Your task to perform on an android device: View the shopping cart on costco. Add "acer predator" to the cart on costco, then select checkout. Image 0: 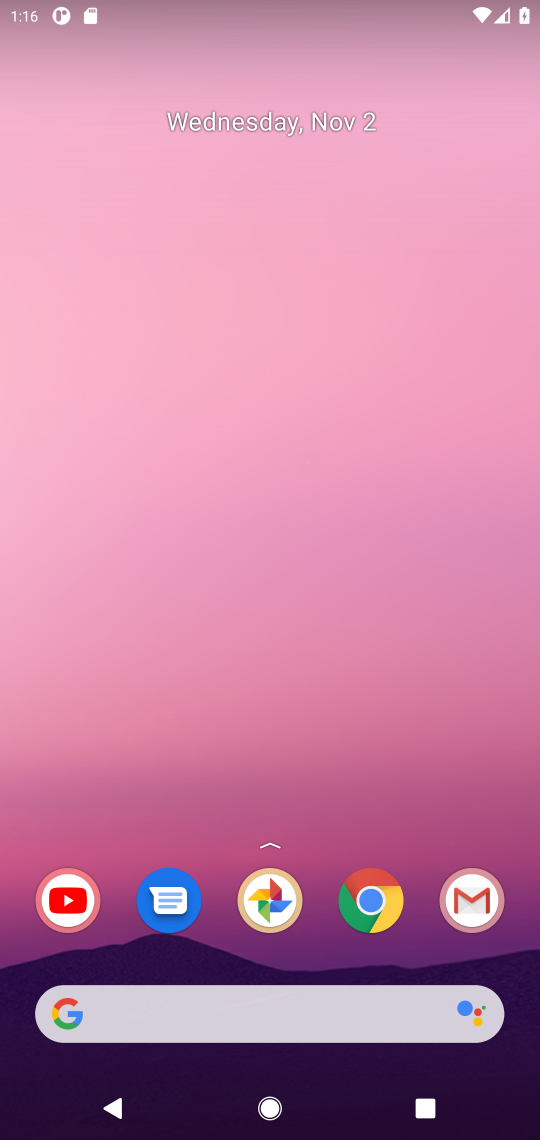
Step 0: click (387, 905)
Your task to perform on an android device: View the shopping cart on costco. Add "acer predator" to the cart on costco, then select checkout. Image 1: 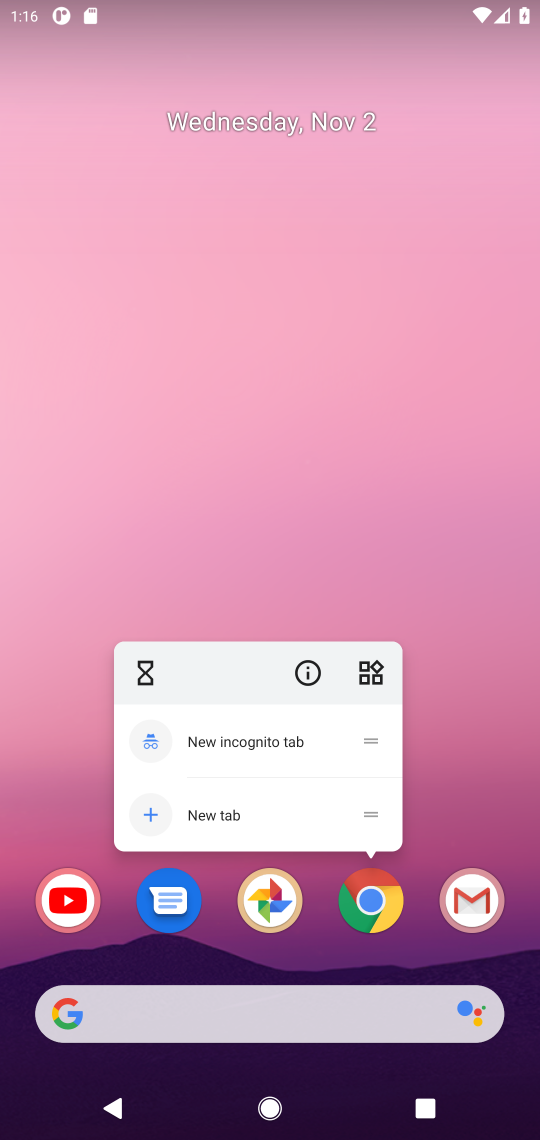
Step 1: click (384, 929)
Your task to perform on an android device: View the shopping cart on costco. Add "acer predator" to the cart on costco, then select checkout. Image 2: 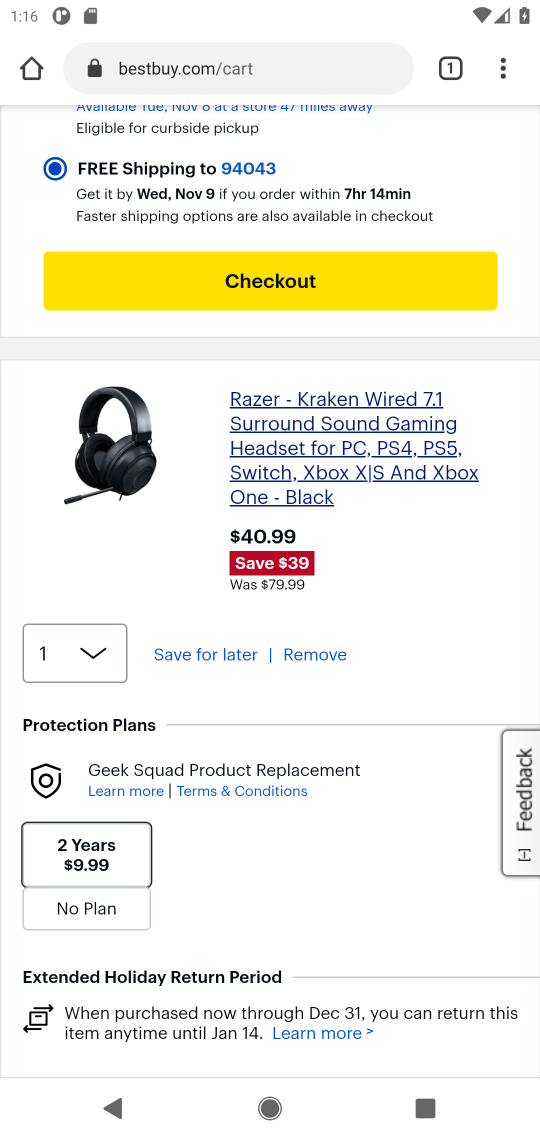
Step 2: press home button
Your task to perform on an android device: View the shopping cart on costco. Add "acer predator" to the cart on costco, then select checkout. Image 3: 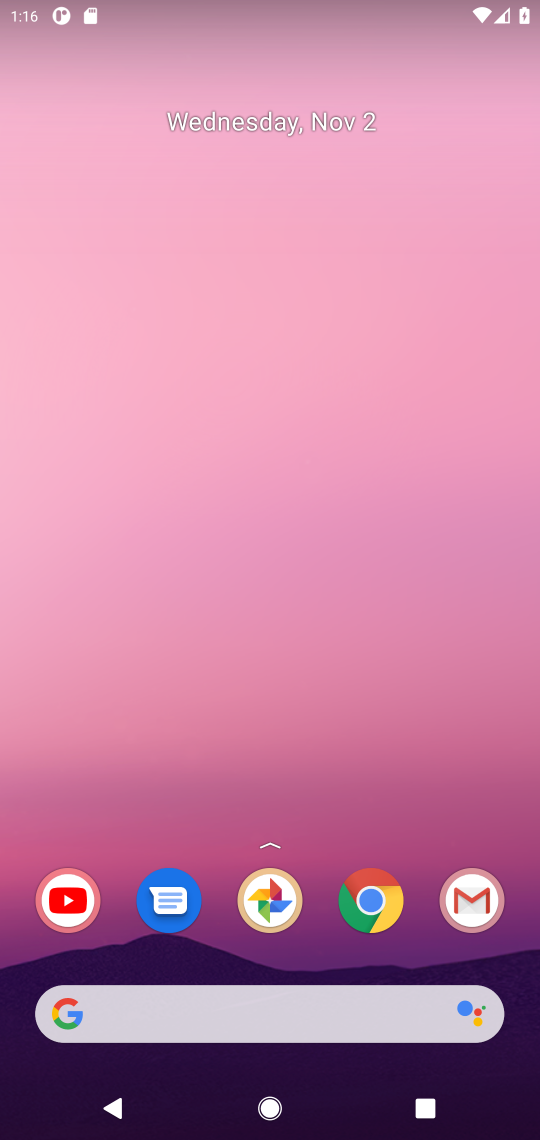
Step 3: click (368, 898)
Your task to perform on an android device: View the shopping cart on costco. Add "acer predator" to the cart on costco, then select checkout. Image 4: 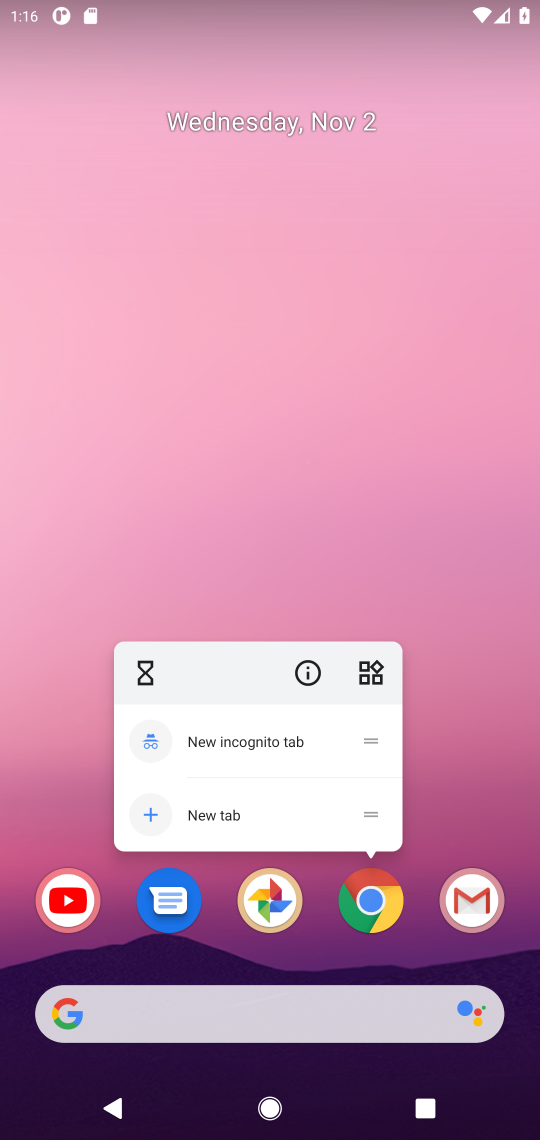
Step 4: click (364, 892)
Your task to perform on an android device: View the shopping cart on costco. Add "acer predator" to the cart on costco, then select checkout. Image 5: 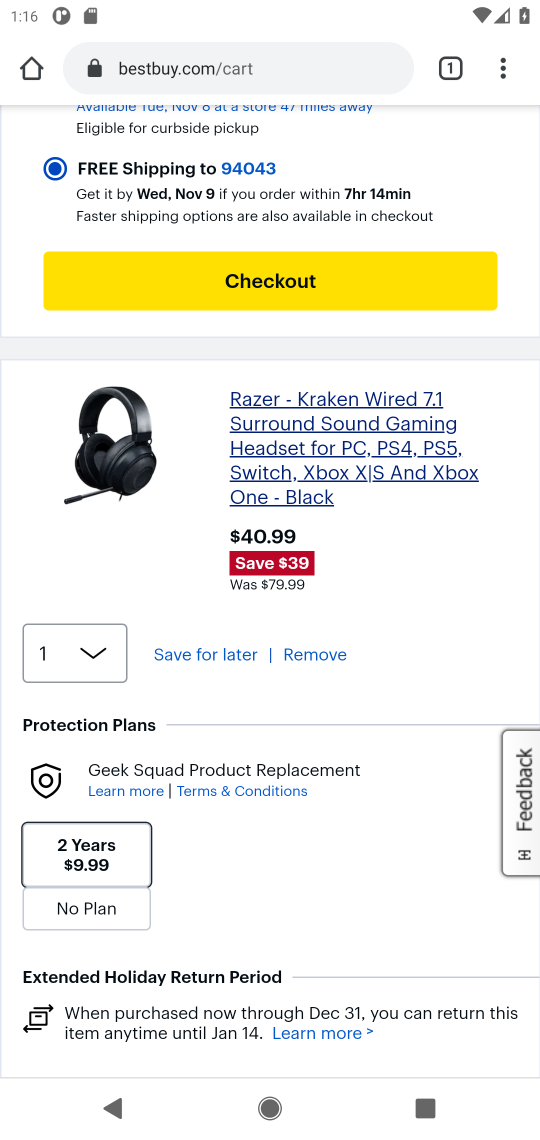
Step 5: click (211, 78)
Your task to perform on an android device: View the shopping cart on costco. Add "acer predator" to the cart on costco, then select checkout. Image 6: 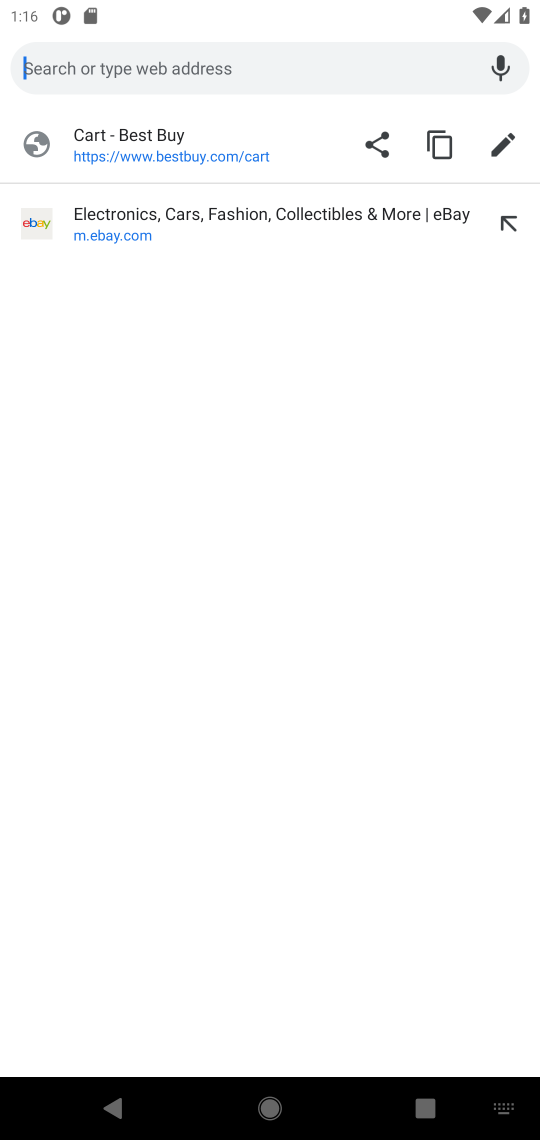
Step 6: type "costco"
Your task to perform on an android device: View the shopping cart on costco. Add "acer predator" to the cart on costco, then select checkout. Image 7: 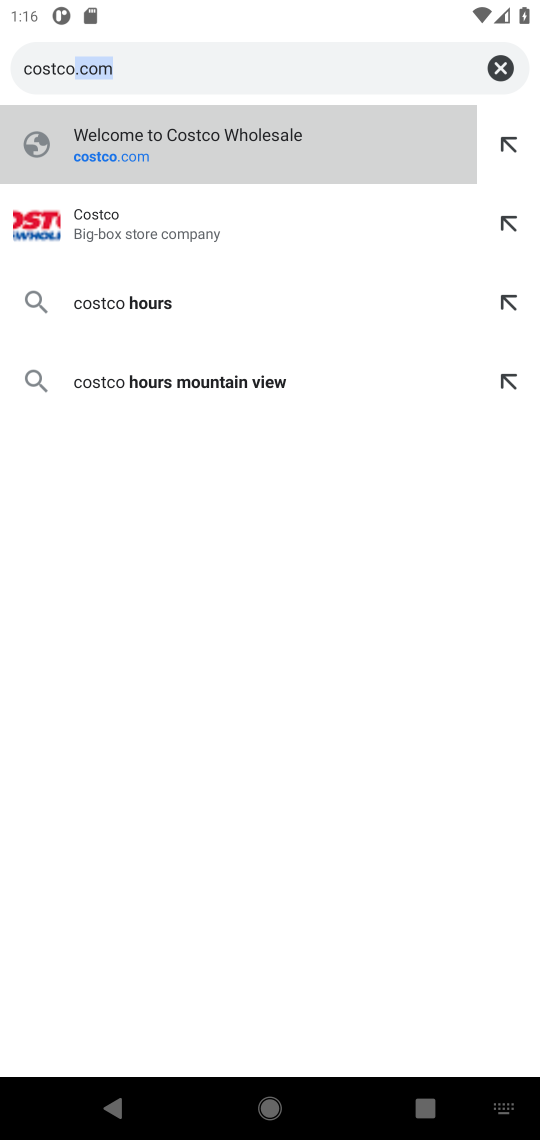
Step 7: type ""
Your task to perform on an android device: View the shopping cart on costco. Add "acer predator" to the cart on costco, then select checkout. Image 8: 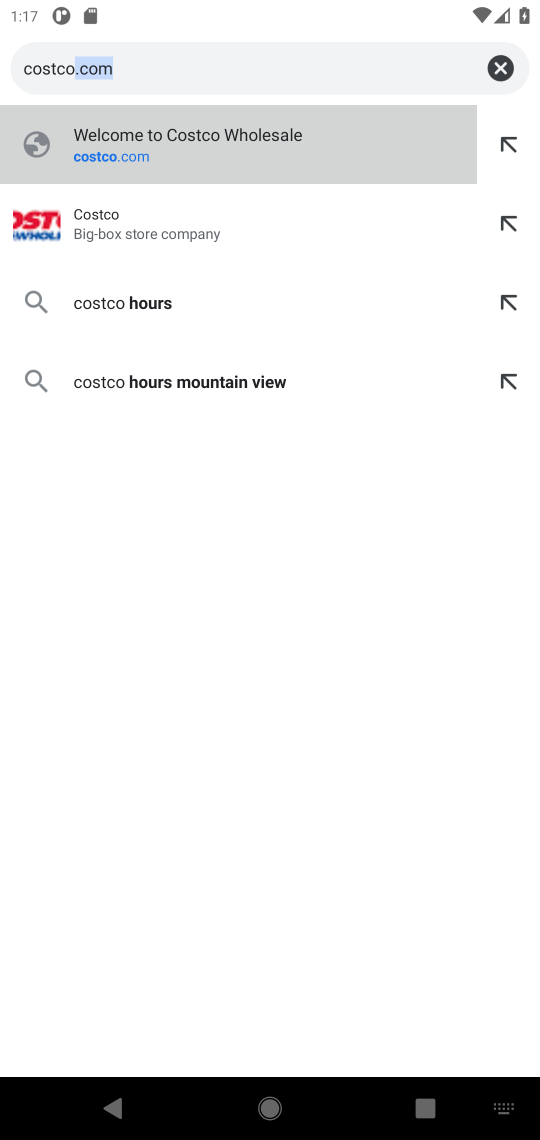
Step 8: click (100, 211)
Your task to perform on an android device: View the shopping cart on costco. Add "acer predator" to the cart on costco, then select checkout. Image 9: 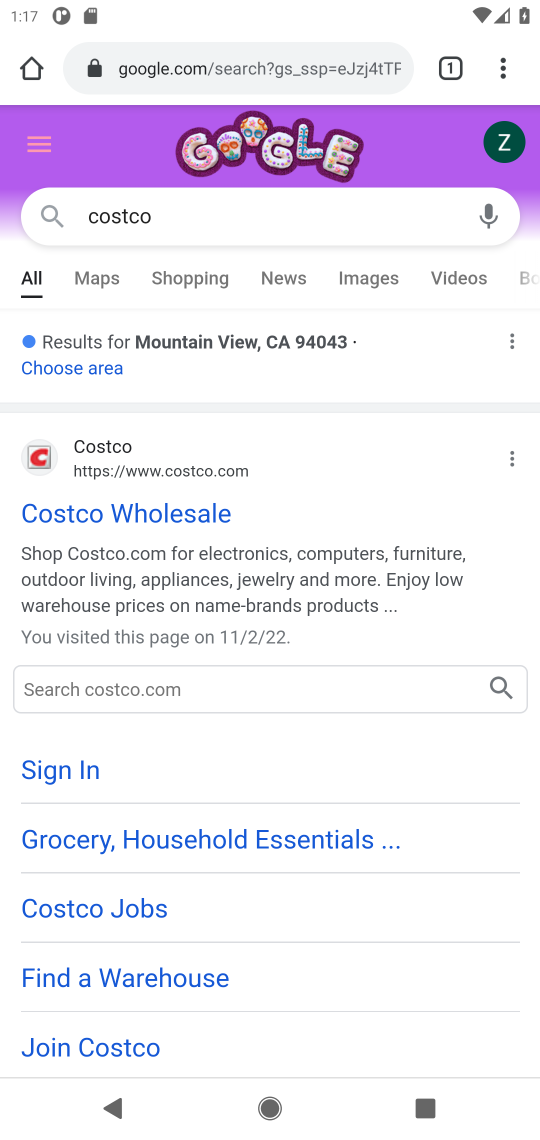
Step 9: click (150, 519)
Your task to perform on an android device: View the shopping cart on costco. Add "acer predator" to the cart on costco, then select checkout. Image 10: 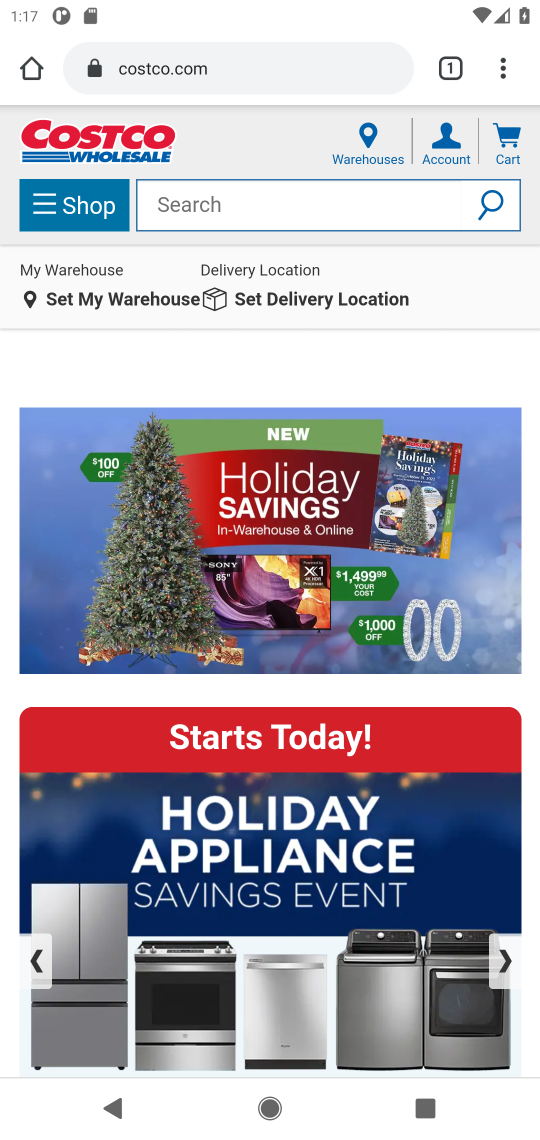
Step 10: click (306, 197)
Your task to perform on an android device: View the shopping cart on costco. Add "acer predator" to the cart on costco, then select checkout. Image 11: 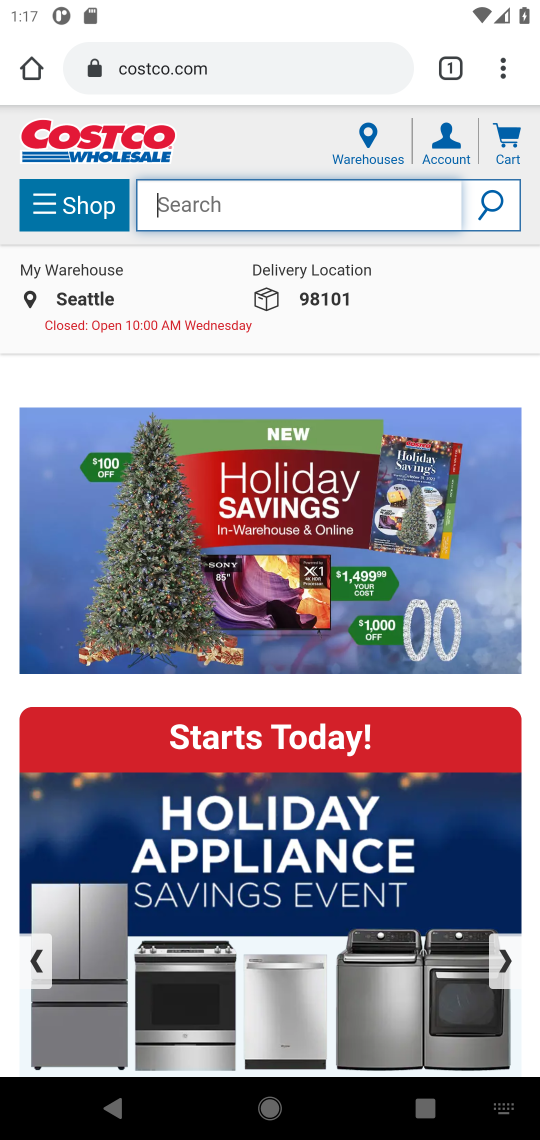
Step 11: type "acer predator"
Your task to perform on an android device: View the shopping cart on costco. Add "acer predator" to the cart on costco, then select checkout. Image 12: 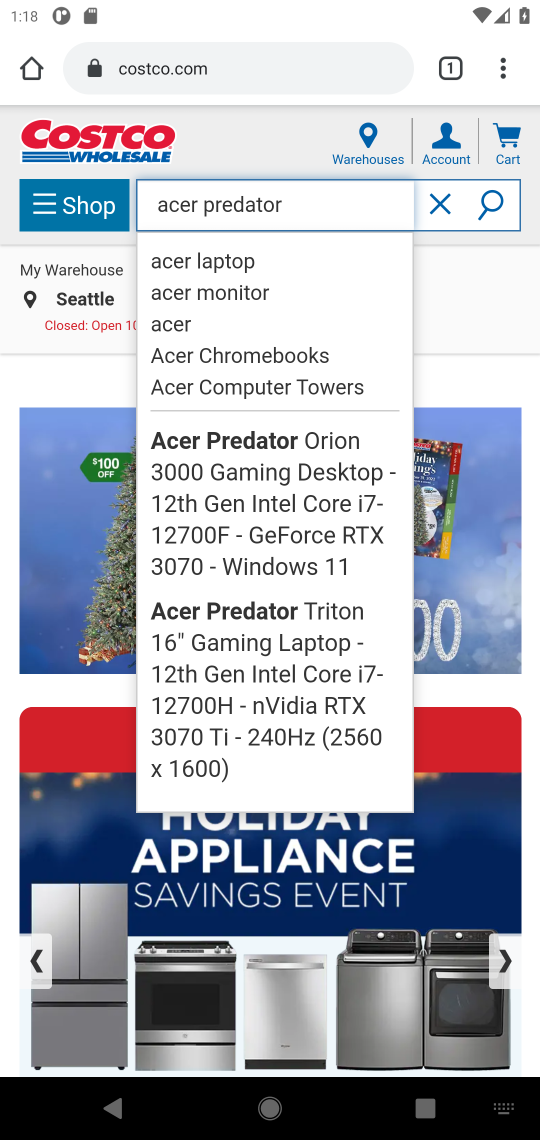
Step 12: click (209, 261)
Your task to perform on an android device: View the shopping cart on costco. Add "acer predator" to the cart on costco, then select checkout. Image 13: 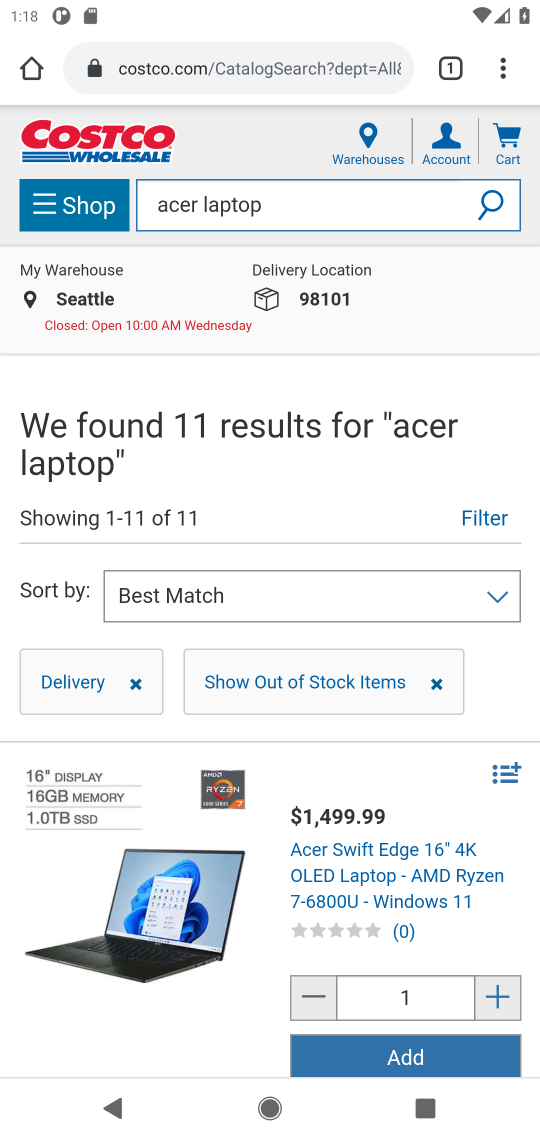
Step 13: drag from (264, 838) to (424, 21)
Your task to perform on an android device: View the shopping cart on costco. Add "acer predator" to the cart on costco, then select checkout. Image 14: 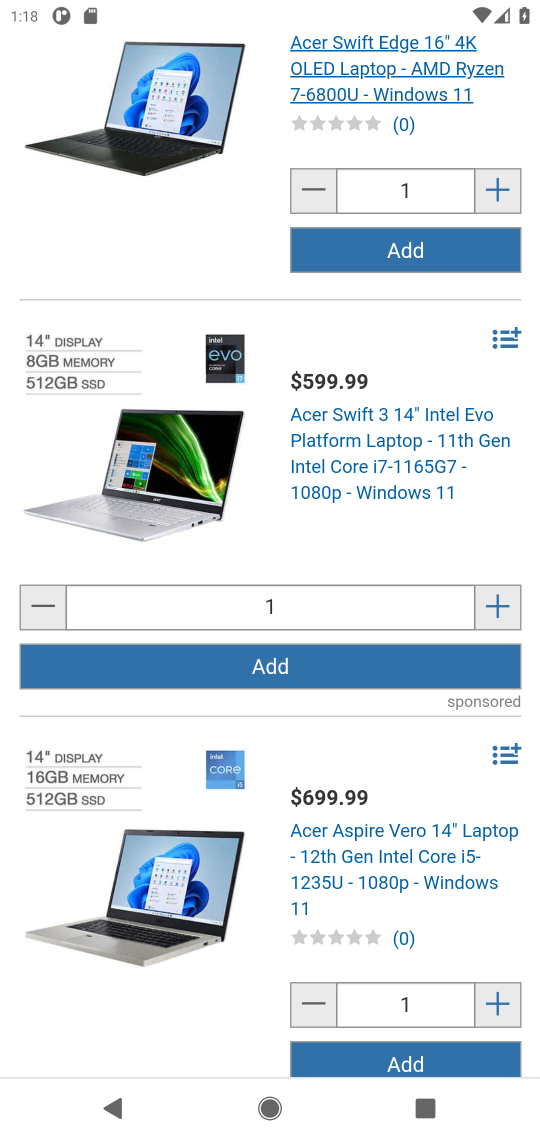
Step 14: drag from (174, 939) to (214, 413)
Your task to perform on an android device: View the shopping cart on costco. Add "acer predator" to the cart on costco, then select checkout. Image 15: 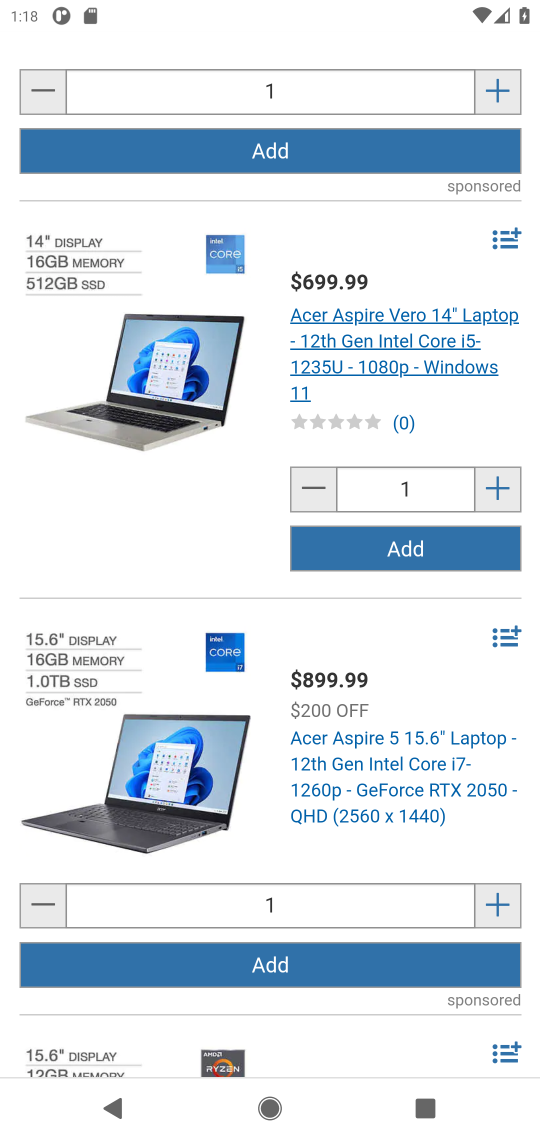
Step 15: click (358, 747)
Your task to perform on an android device: View the shopping cart on costco. Add "acer predator" to the cart on costco, then select checkout. Image 16: 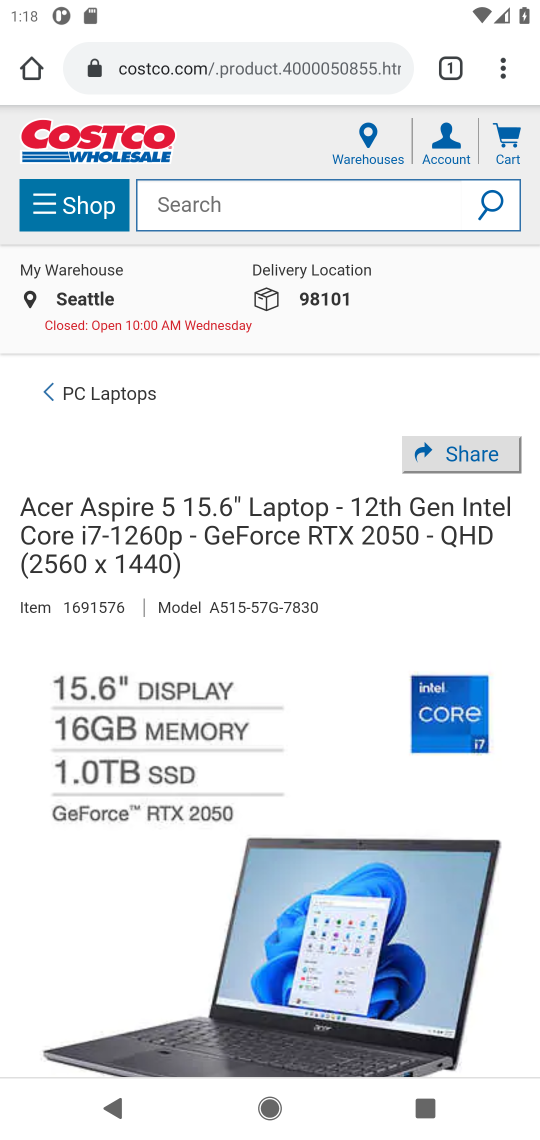
Step 16: drag from (177, 813) to (314, 391)
Your task to perform on an android device: View the shopping cart on costco. Add "acer predator" to the cart on costco, then select checkout. Image 17: 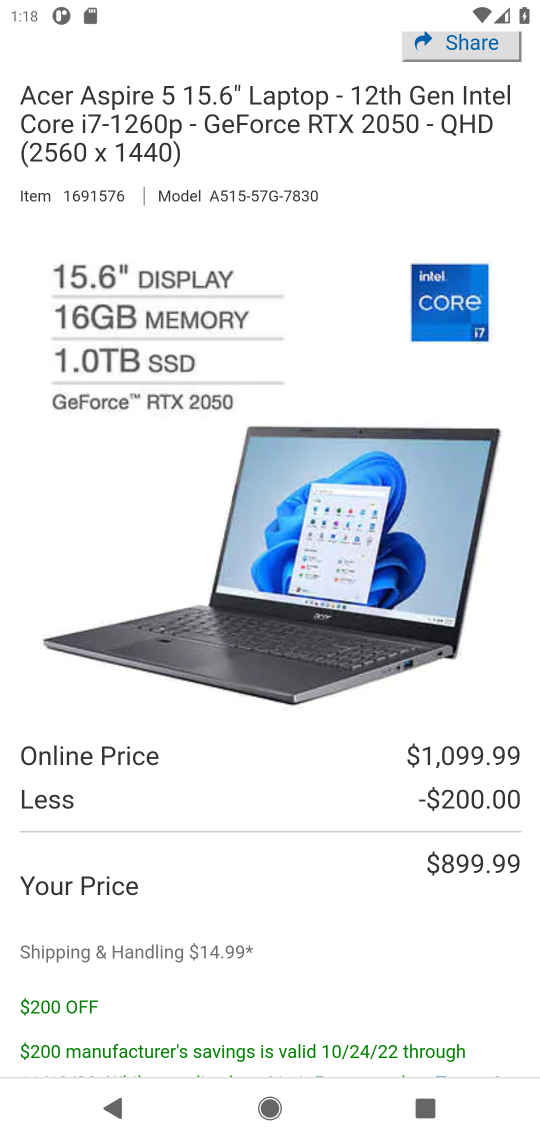
Step 17: drag from (212, 872) to (358, 113)
Your task to perform on an android device: View the shopping cart on costco. Add "acer predator" to the cart on costco, then select checkout. Image 18: 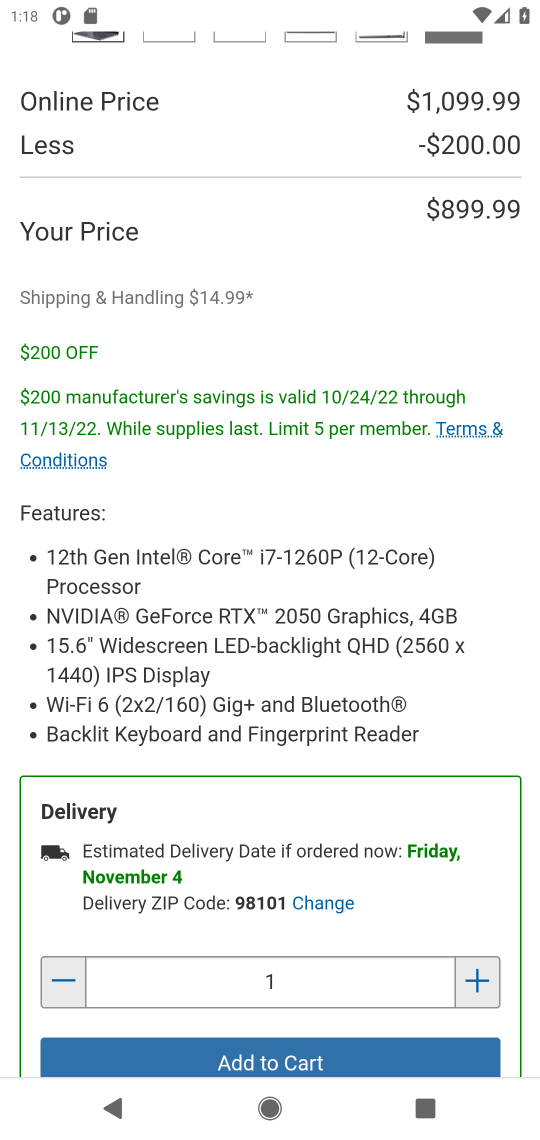
Step 18: click (246, 1061)
Your task to perform on an android device: View the shopping cart on costco. Add "acer predator" to the cart on costco, then select checkout. Image 19: 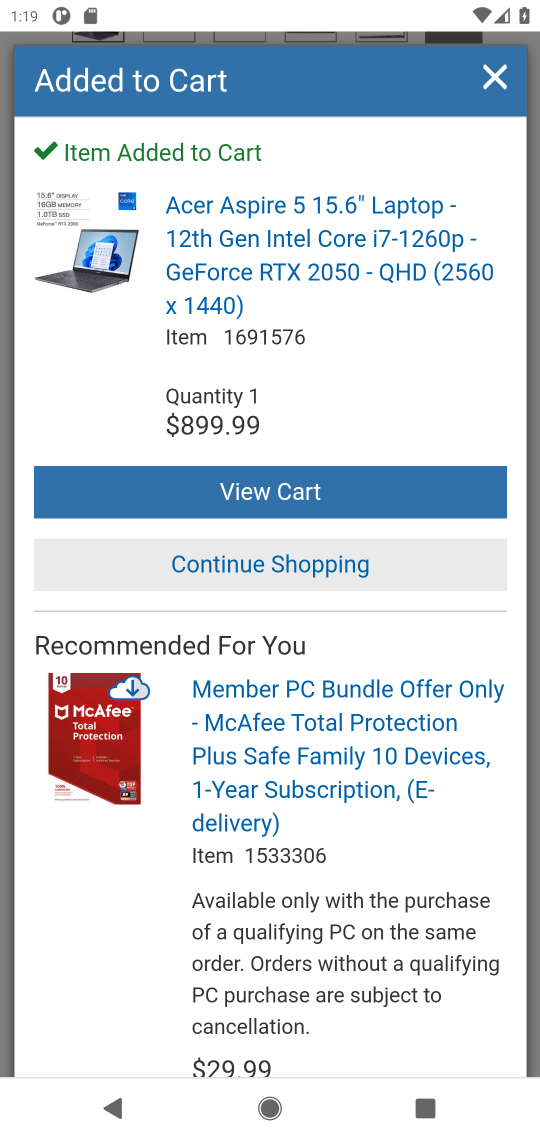
Step 19: click (237, 483)
Your task to perform on an android device: View the shopping cart on costco. Add "acer predator" to the cart on costco, then select checkout. Image 20: 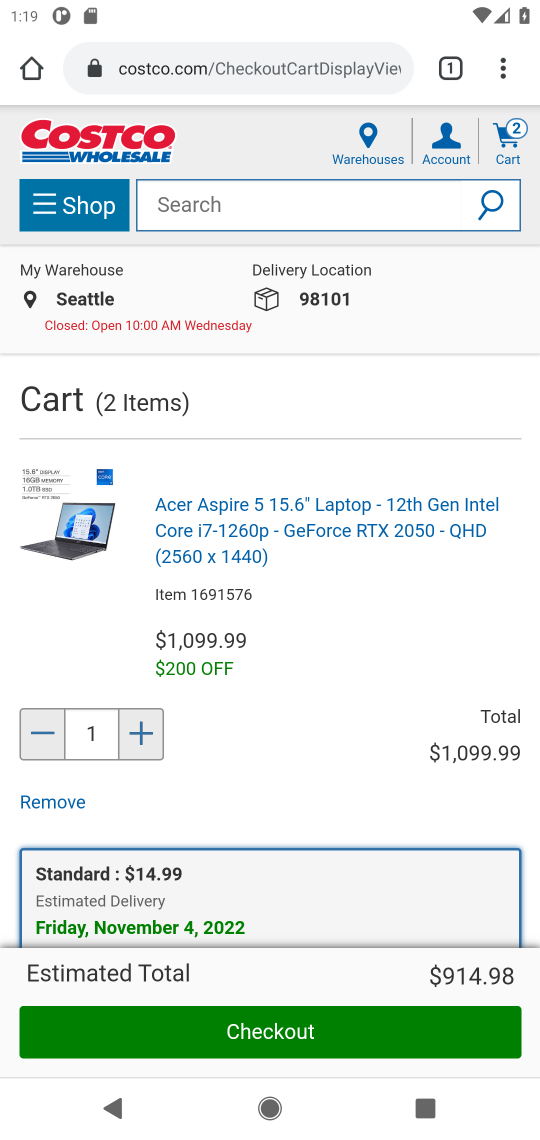
Step 20: click (266, 1038)
Your task to perform on an android device: View the shopping cart on costco. Add "acer predator" to the cart on costco, then select checkout. Image 21: 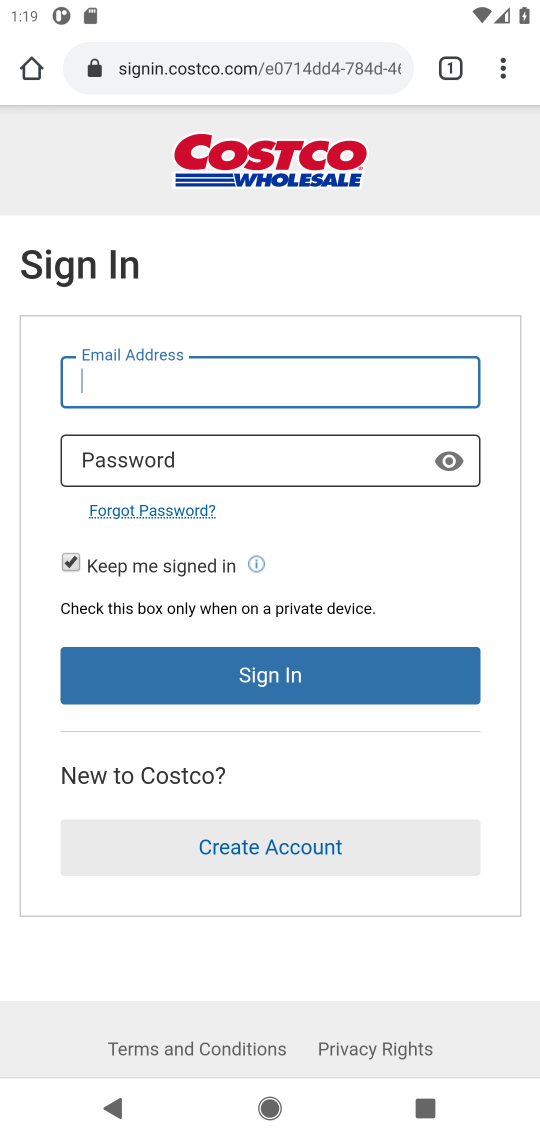
Step 21: task complete